Your task to perform on an android device: manage bookmarks in the chrome app Image 0: 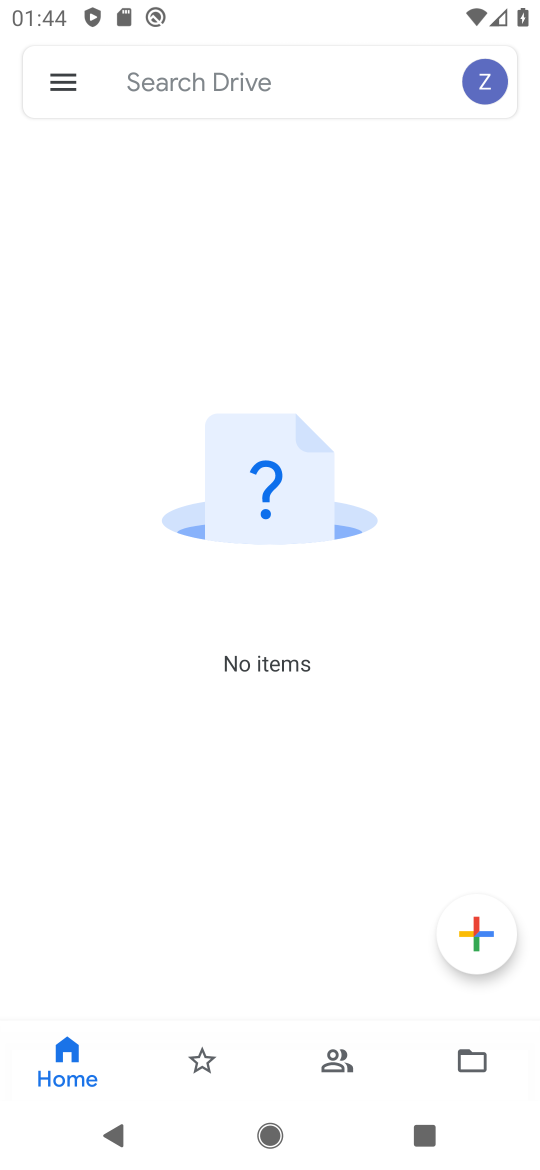
Step 0: drag from (216, 838) to (343, 440)
Your task to perform on an android device: manage bookmarks in the chrome app Image 1: 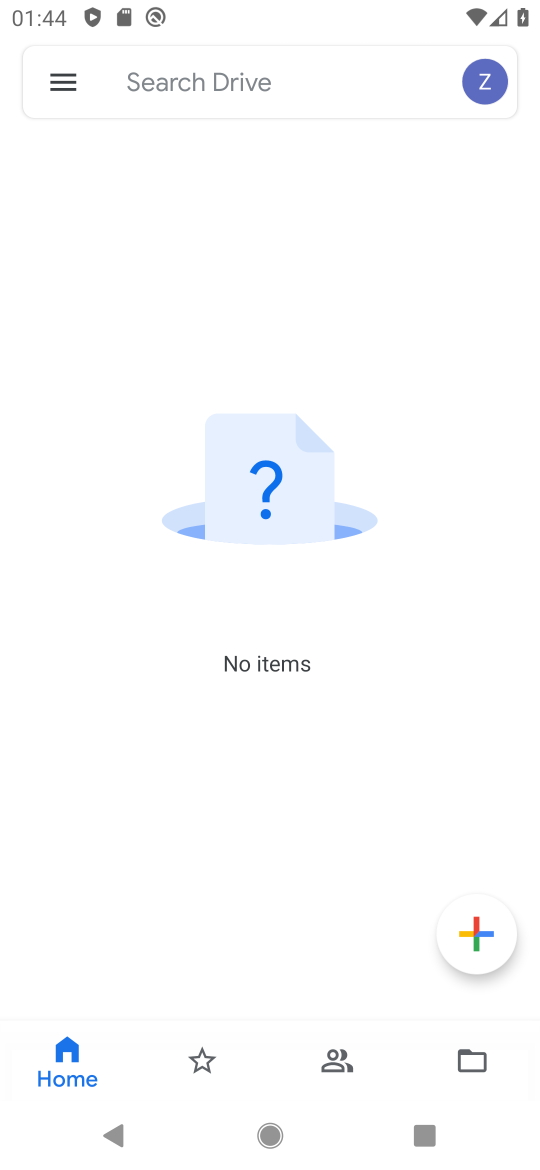
Step 1: press home button
Your task to perform on an android device: manage bookmarks in the chrome app Image 2: 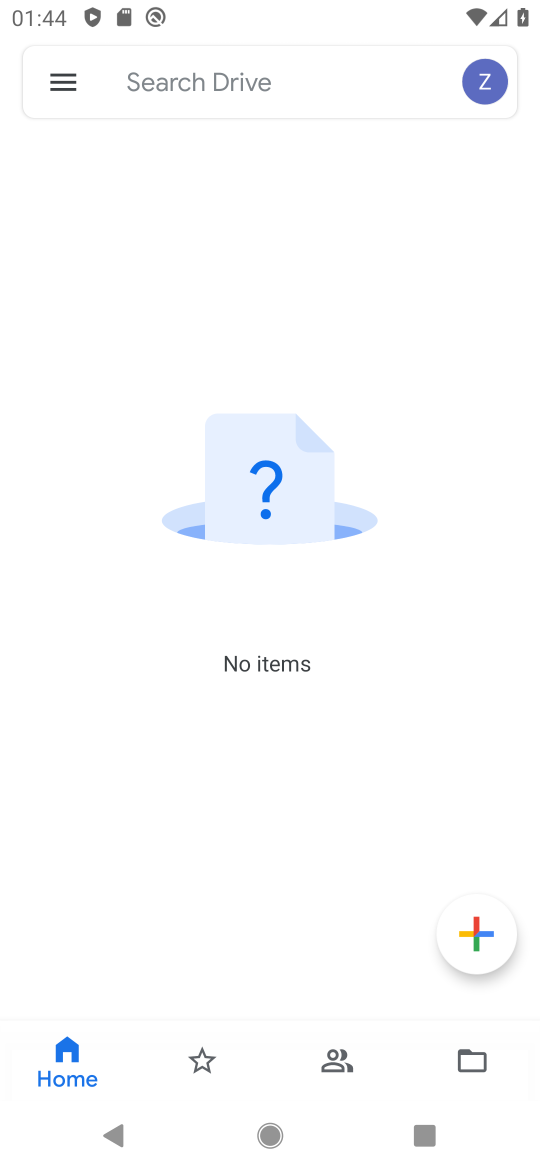
Step 2: click (408, 451)
Your task to perform on an android device: manage bookmarks in the chrome app Image 3: 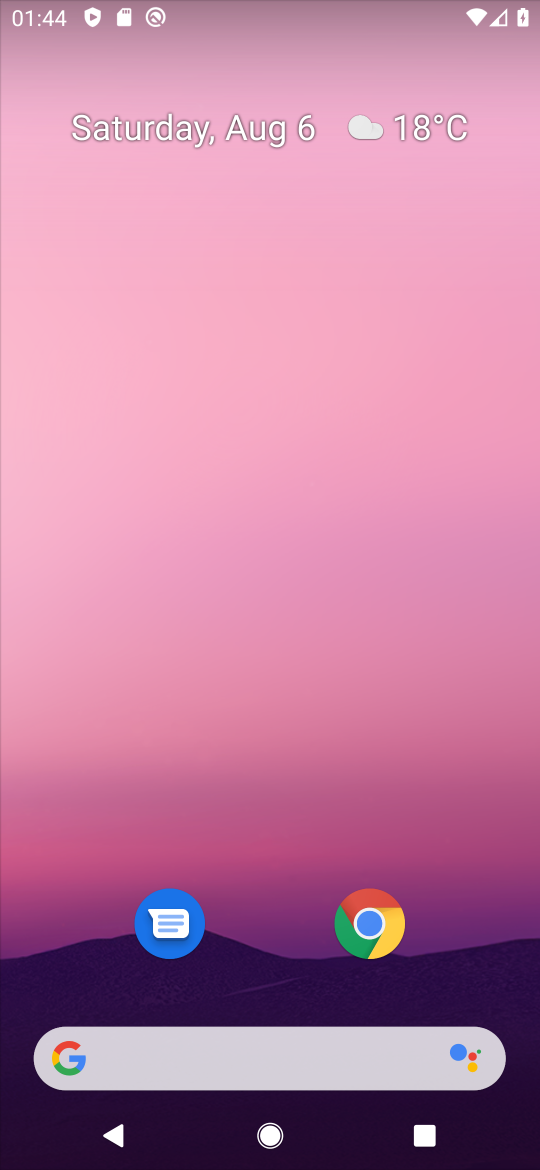
Step 3: drag from (293, 618) to (316, 429)
Your task to perform on an android device: manage bookmarks in the chrome app Image 4: 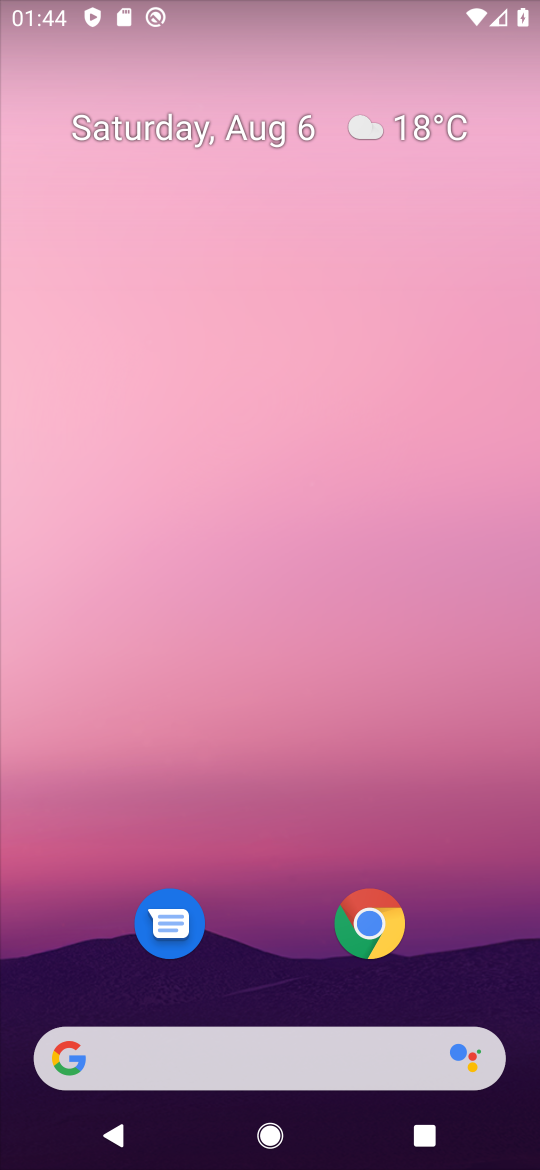
Step 4: drag from (301, 964) to (425, 194)
Your task to perform on an android device: manage bookmarks in the chrome app Image 5: 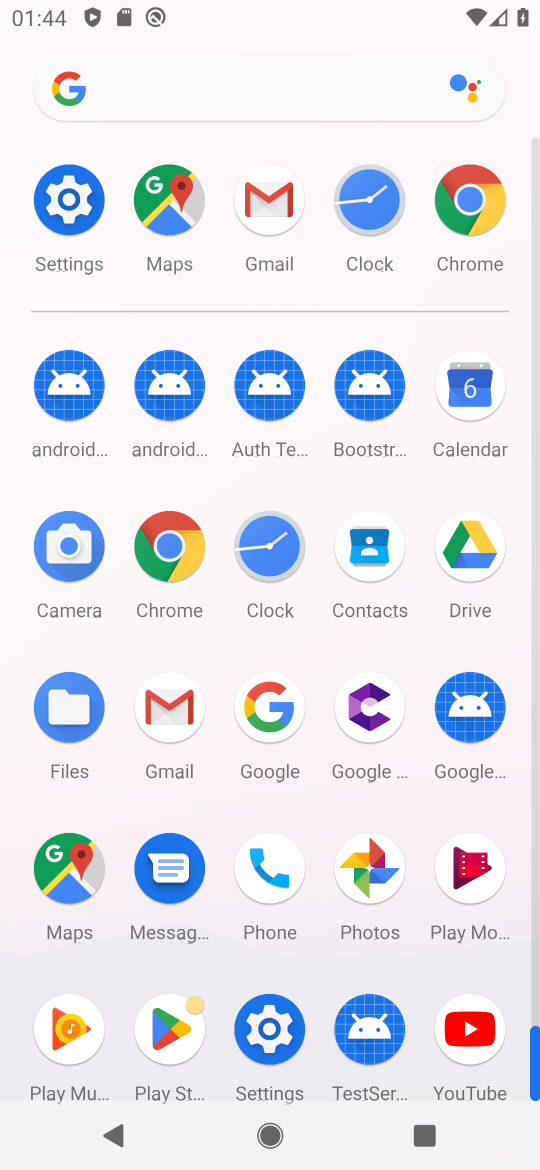
Step 5: click (467, 195)
Your task to perform on an android device: manage bookmarks in the chrome app Image 6: 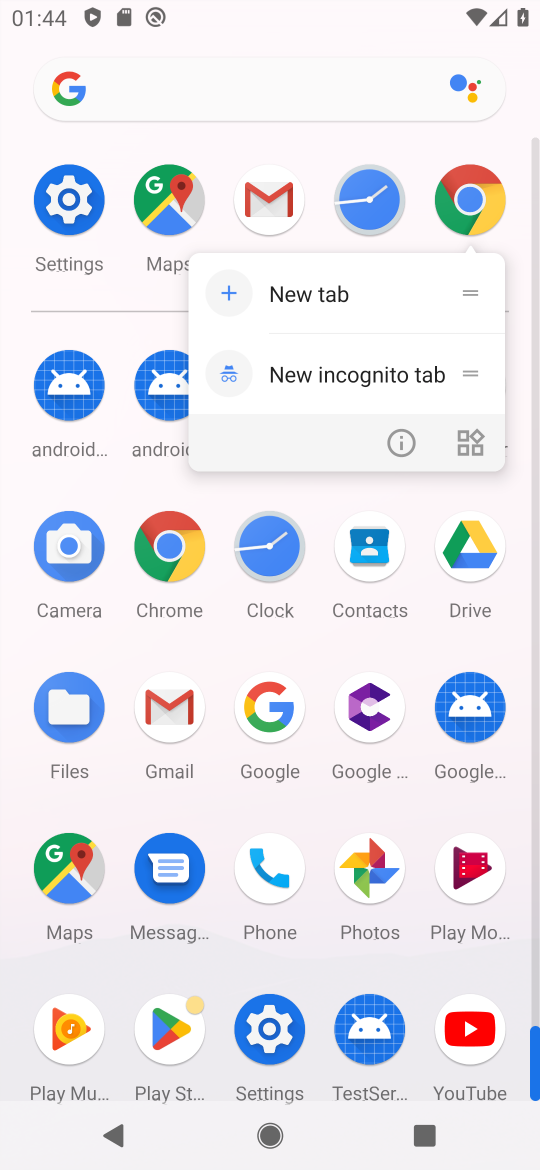
Step 6: click (392, 443)
Your task to perform on an android device: manage bookmarks in the chrome app Image 7: 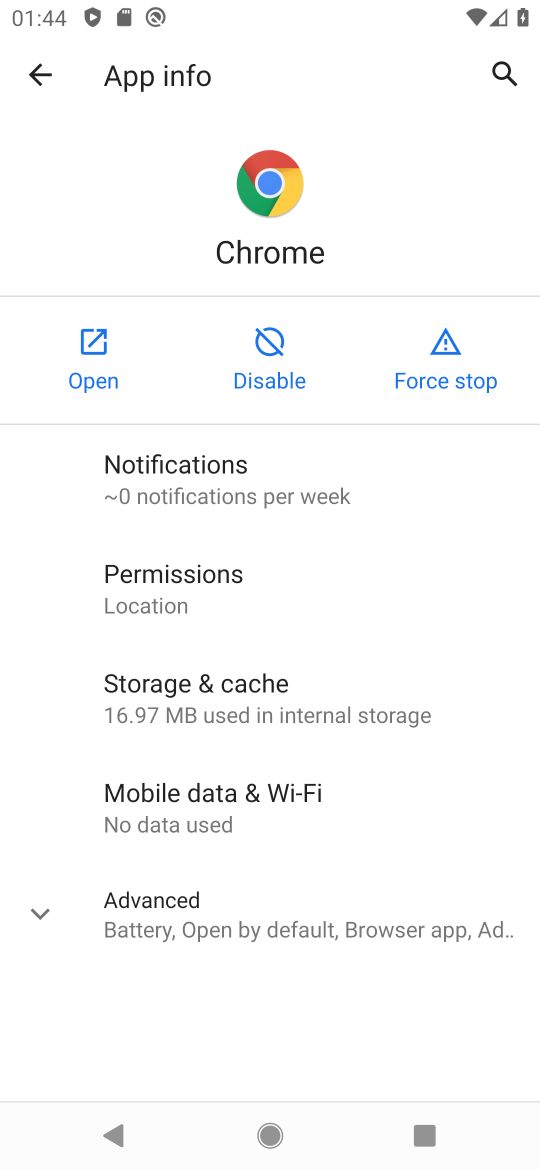
Step 7: click (77, 344)
Your task to perform on an android device: manage bookmarks in the chrome app Image 8: 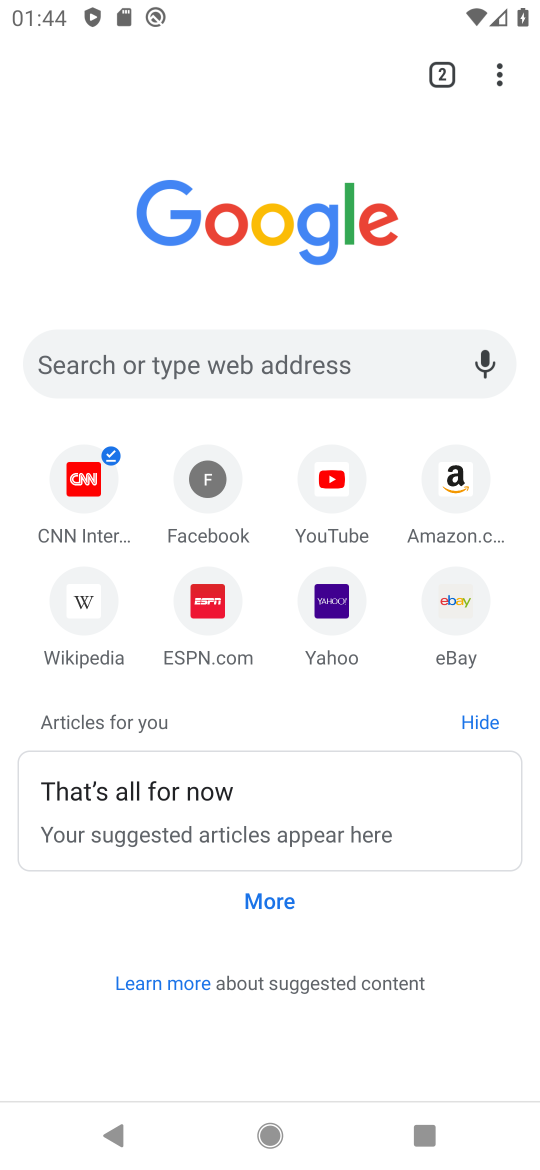
Step 8: drag from (507, 69) to (298, 379)
Your task to perform on an android device: manage bookmarks in the chrome app Image 9: 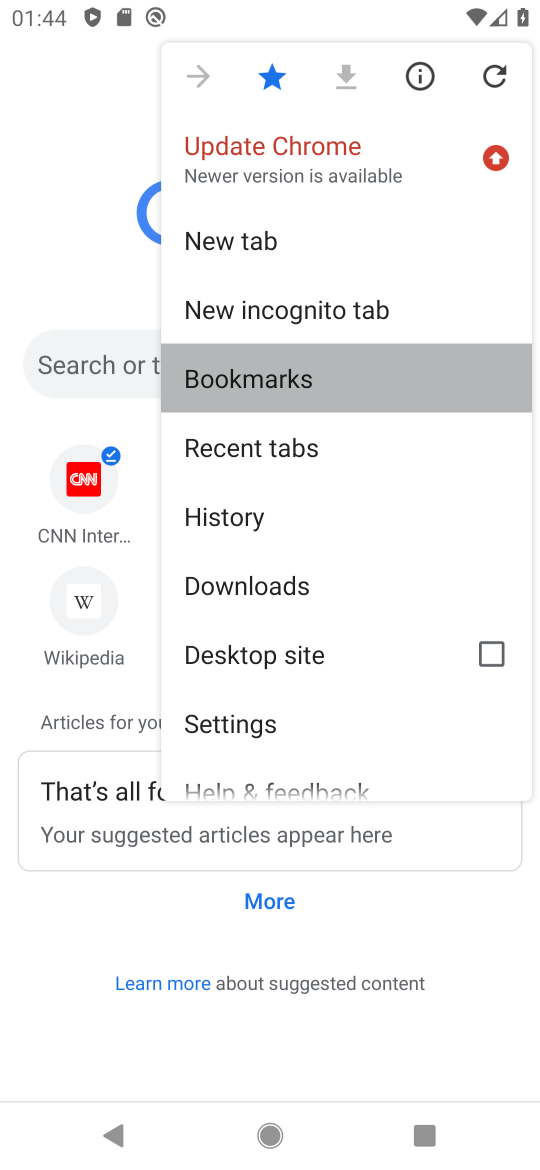
Step 9: click (298, 379)
Your task to perform on an android device: manage bookmarks in the chrome app Image 10: 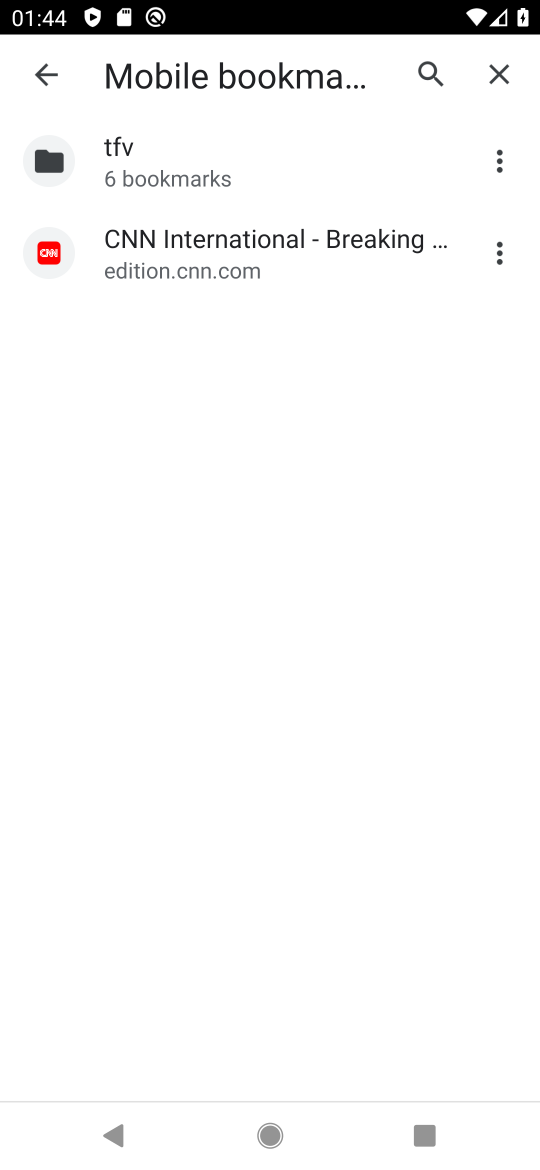
Step 10: task complete